Your task to perform on an android device: open chrome and create a bookmark for the current page Image 0: 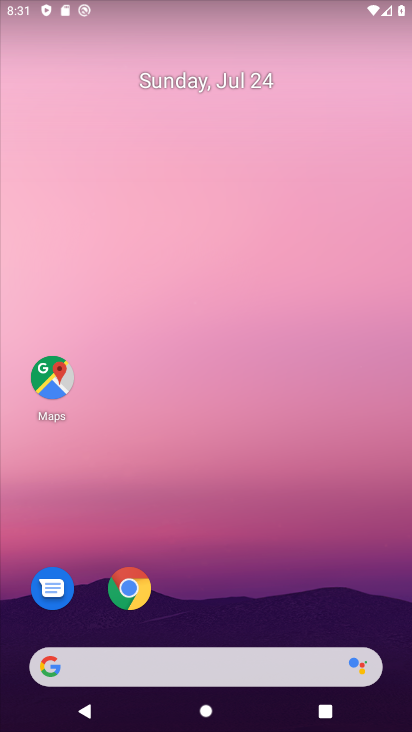
Step 0: click (119, 580)
Your task to perform on an android device: open chrome and create a bookmark for the current page Image 1: 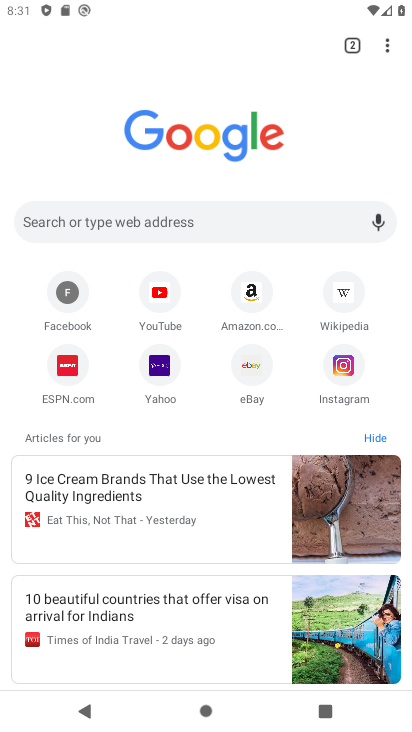
Step 1: click (384, 42)
Your task to perform on an android device: open chrome and create a bookmark for the current page Image 2: 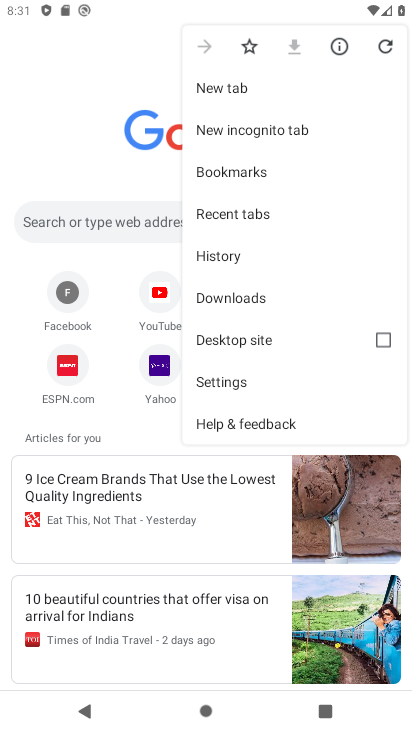
Step 2: click (251, 44)
Your task to perform on an android device: open chrome and create a bookmark for the current page Image 3: 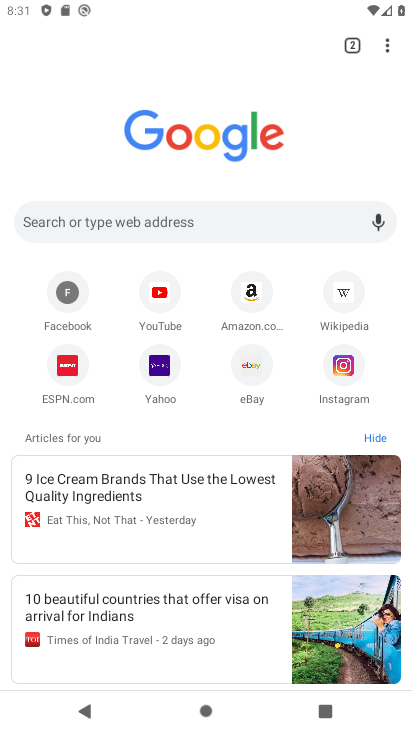
Step 3: task complete